Your task to perform on an android device: Open Chrome and go to settings Image 0: 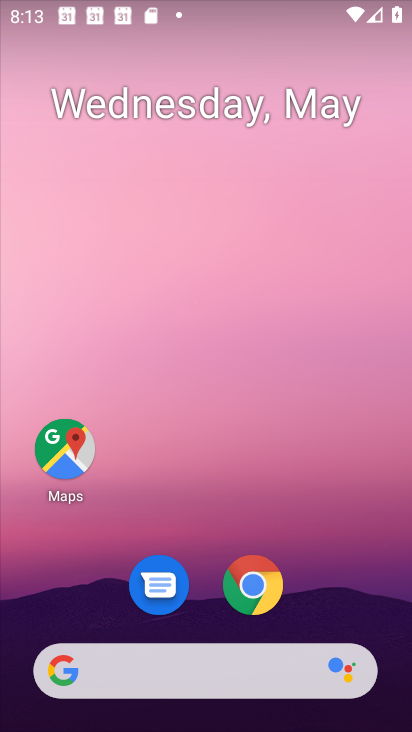
Step 0: click (260, 574)
Your task to perform on an android device: Open Chrome and go to settings Image 1: 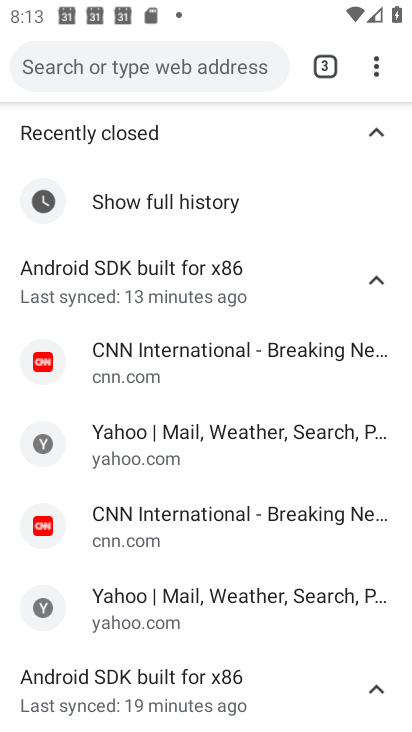
Step 1: click (377, 58)
Your task to perform on an android device: Open Chrome and go to settings Image 2: 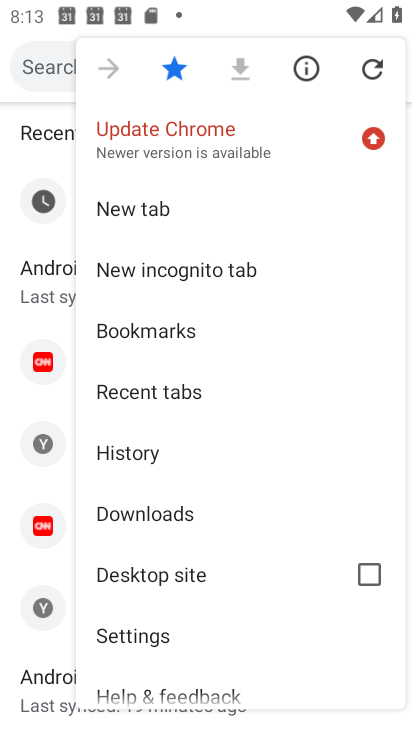
Step 2: click (183, 635)
Your task to perform on an android device: Open Chrome and go to settings Image 3: 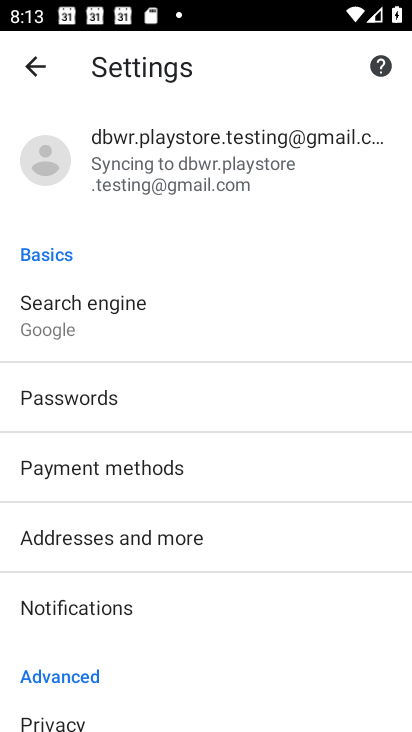
Step 3: task complete